Your task to perform on an android device: turn on the 24-hour format for clock Image 0: 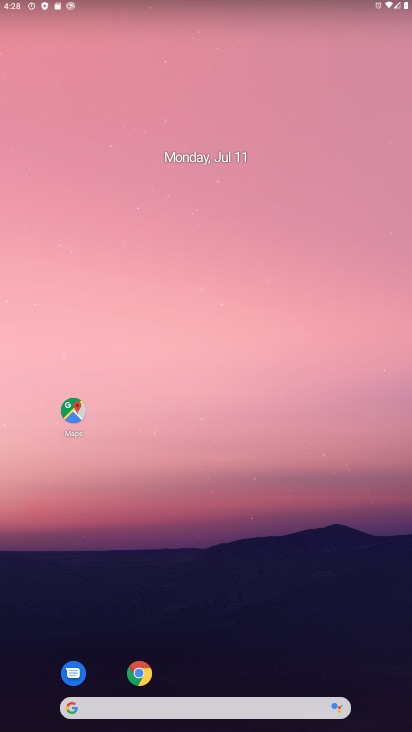
Step 0: drag from (206, 607) to (296, 143)
Your task to perform on an android device: turn on the 24-hour format for clock Image 1: 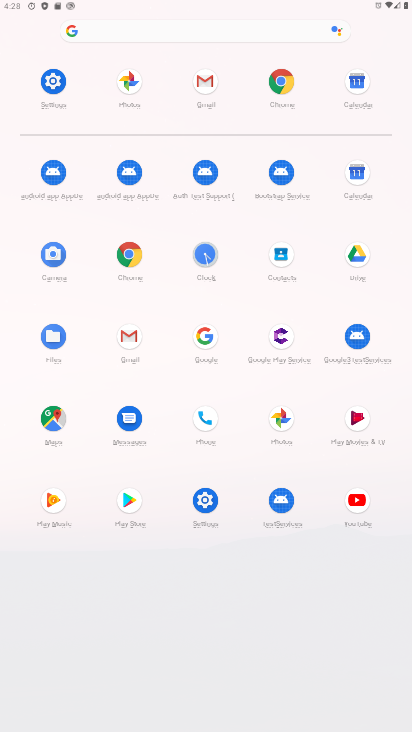
Step 1: click (199, 250)
Your task to perform on an android device: turn on the 24-hour format for clock Image 2: 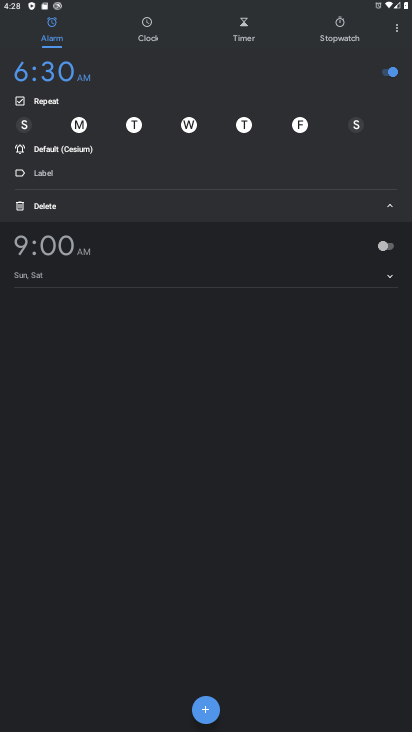
Step 2: click (398, 31)
Your task to perform on an android device: turn on the 24-hour format for clock Image 3: 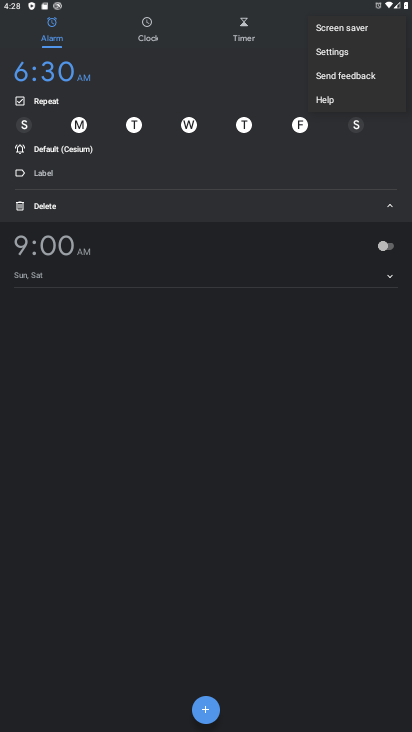
Step 3: click (325, 55)
Your task to perform on an android device: turn on the 24-hour format for clock Image 4: 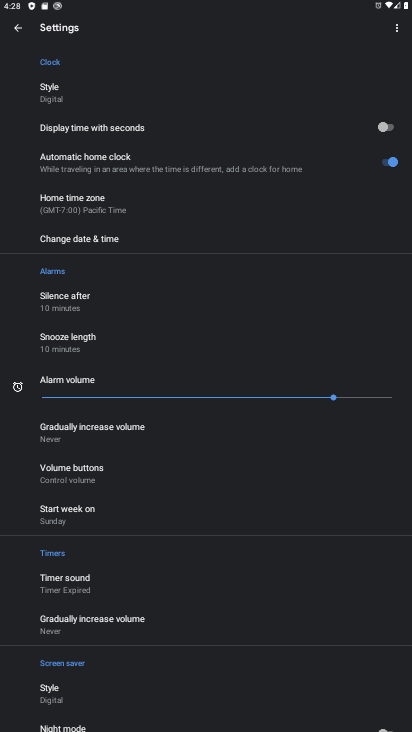
Step 4: drag from (229, 604) to (206, 334)
Your task to perform on an android device: turn on the 24-hour format for clock Image 5: 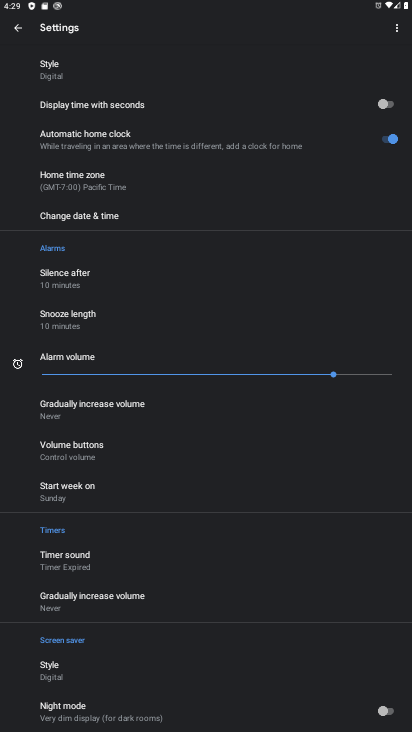
Step 5: drag from (129, 627) to (93, 141)
Your task to perform on an android device: turn on the 24-hour format for clock Image 6: 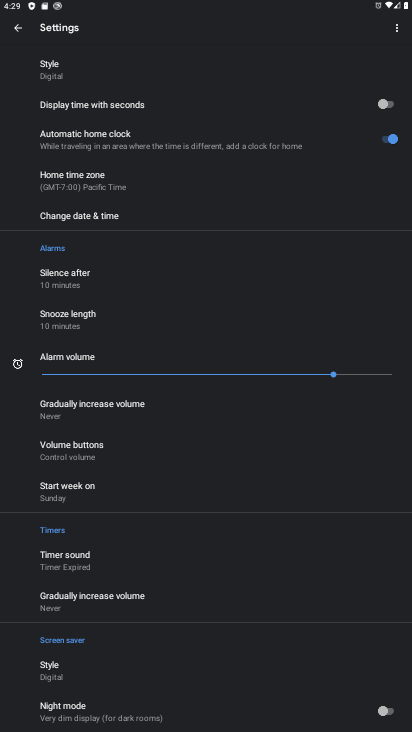
Step 6: drag from (110, 578) to (117, 359)
Your task to perform on an android device: turn on the 24-hour format for clock Image 7: 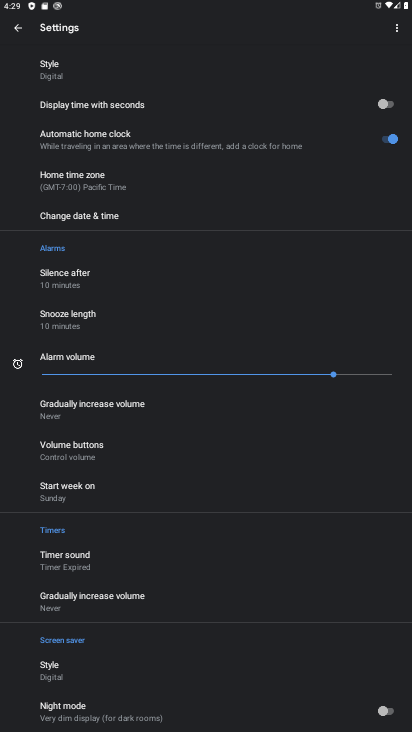
Step 7: click (80, 223)
Your task to perform on an android device: turn on the 24-hour format for clock Image 8: 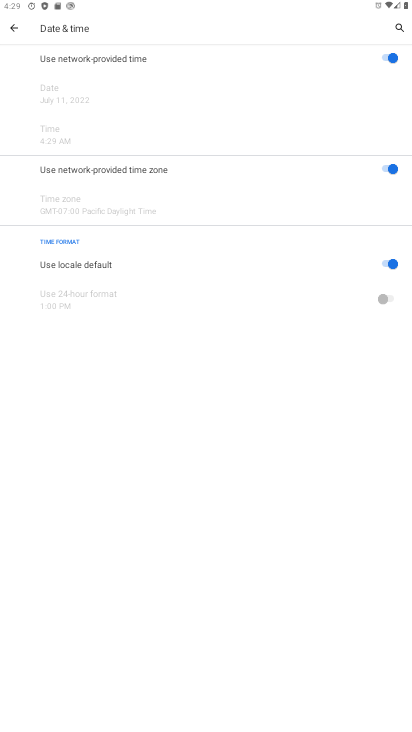
Step 8: task complete